Your task to perform on an android device: Show me productivity apps on the Play Store Image 0: 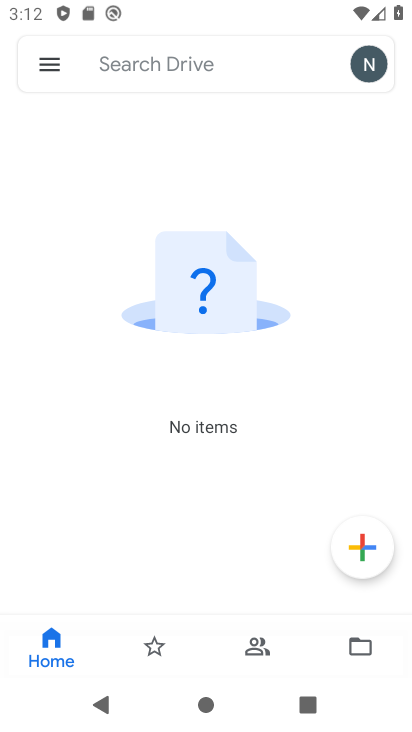
Step 0: press home button
Your task to perform on an android device: Show me productivity apps on the Play Store Image 1: 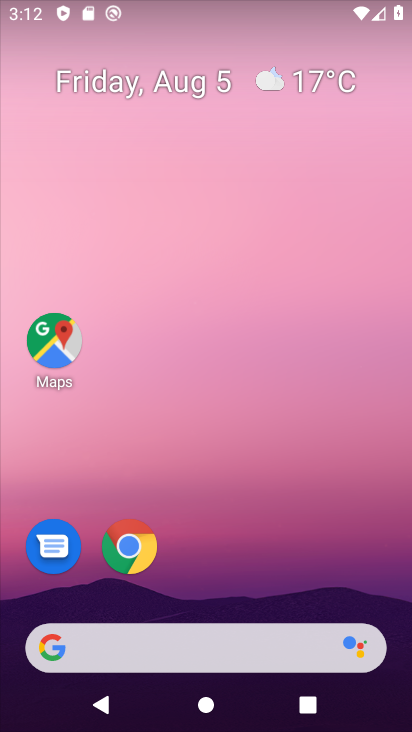
Step 1: drag from (321, 582) to (318, 162)
Your task to perform on an android device: Show me productivity apps on the Play Store Image 2: 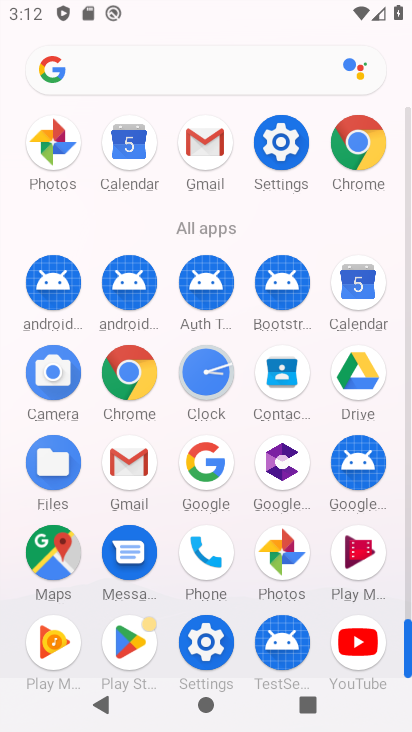
Step 2: drag from (158, 519) to (167, 398)
Your task to perform on an android device: Show me productivity apps on the Play Store Image 3: 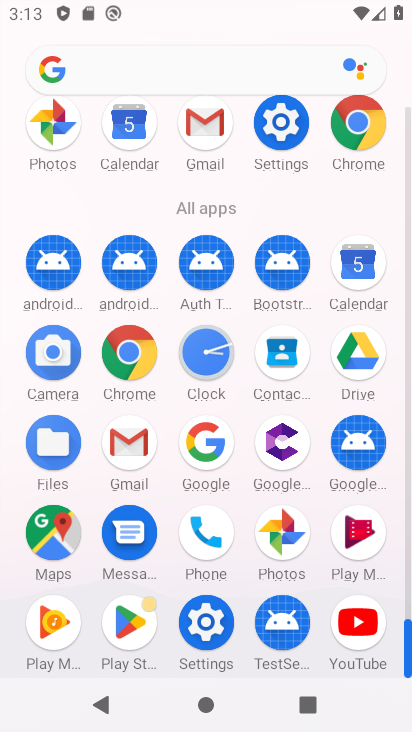
Step 3: click (119, 633)
Your task to perform on an android device: Show me productivity apps on the Play Store Image 4: 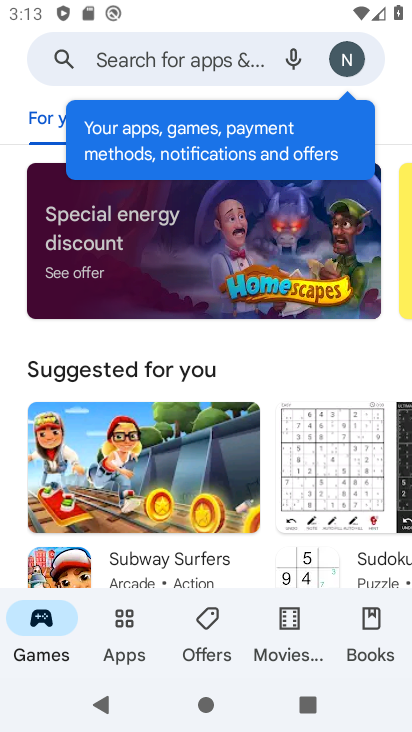
Step 4: click (119, 630)
Your task to perform on an android device: Show me productivity apps on the Play Store Image 5: 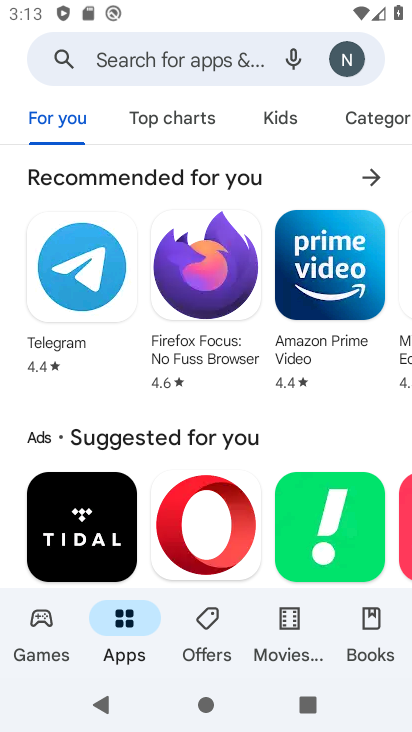
Step 5: task complete